Your task to perform on an android device: Go to Maps Image 0: 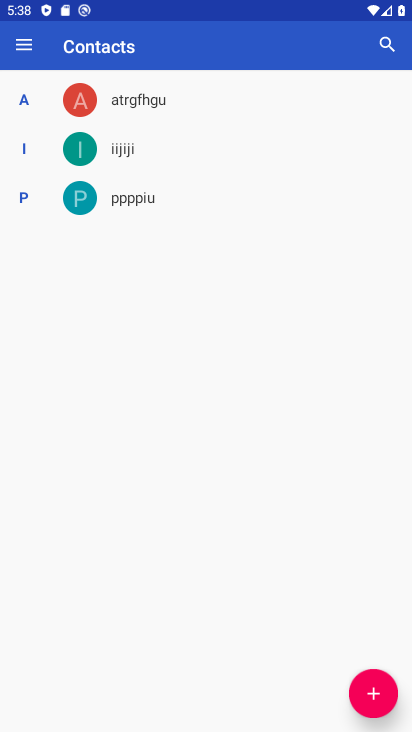
Step 0: press home button
Your task to perform on an android device: Go to Maps Image 1: 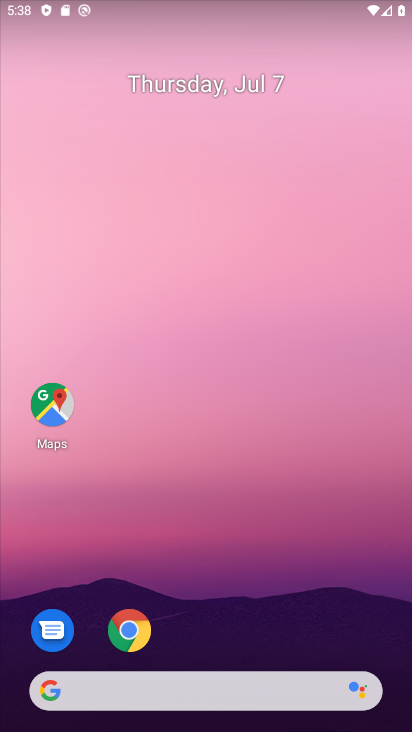
Step 1: drag from (212, 621) to (224, 123)
Your task to perform on an android device: Go to Maps Image 2: 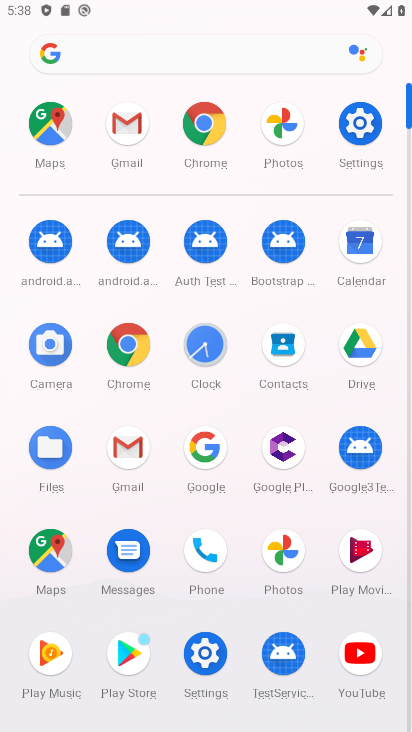
Step 2: click (31, 134)
Your task to perform on an android device: Go to Maps Image 3: 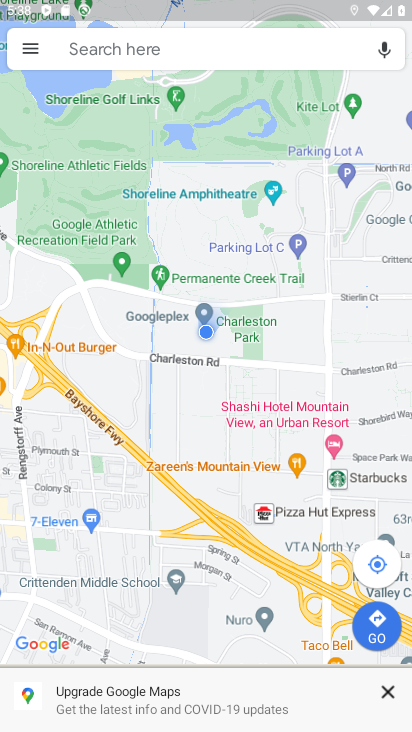
Step 3: task complete